Your task to perform on an android device: Open ESPN.com Image 0: 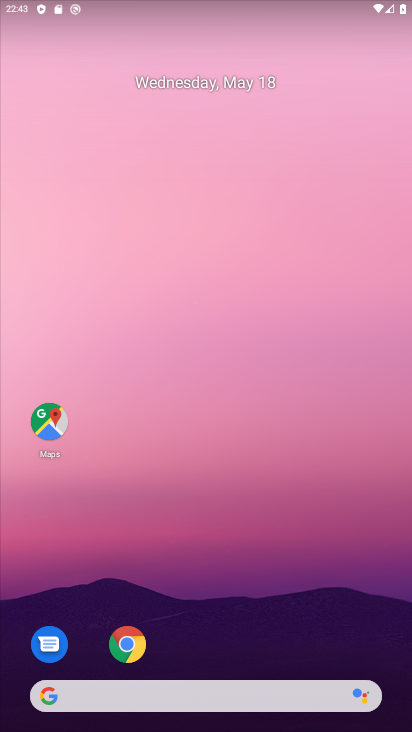
Step 0: click (129, 636)
Your task to perform on an android device: Open ESPN.com Image 1: 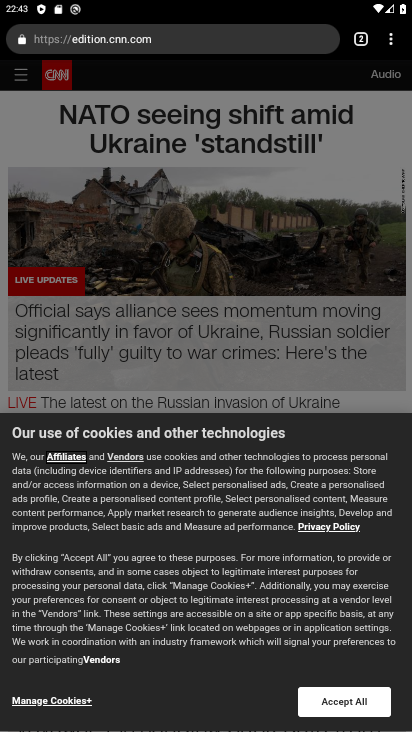
Step 1: click (171, 35)
Your task to perform on an android device: Open ESPN.com Image 2: 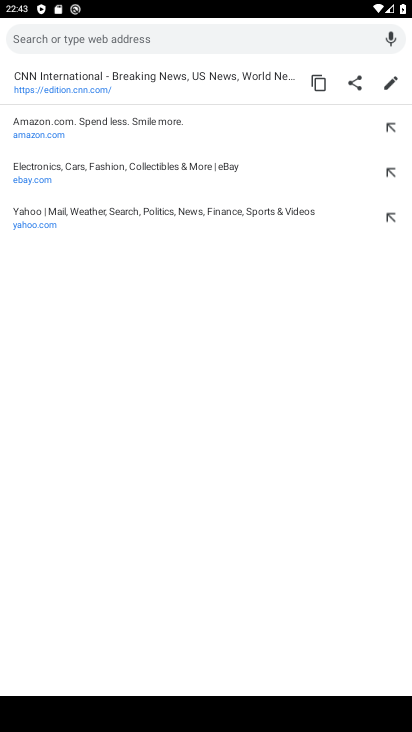
Step 2: type "espn.com"
Your task to perform on an android device: Open ESPN.com Image 3: 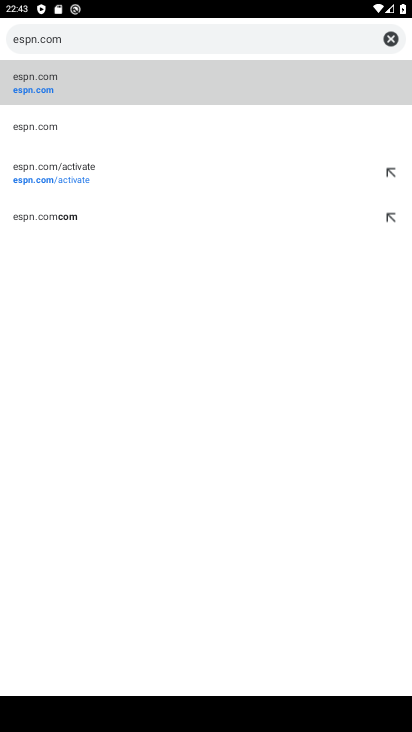
Step 3: click (28, 89)
Your task to perform on an android device: Open ESPN.com Image 4: 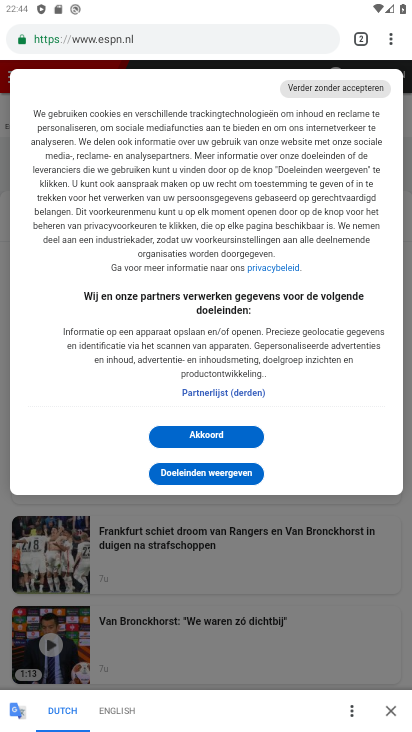
Step 4: task complete